Your task to perform on an android device: turn pop-ups on in chrome Image 0: 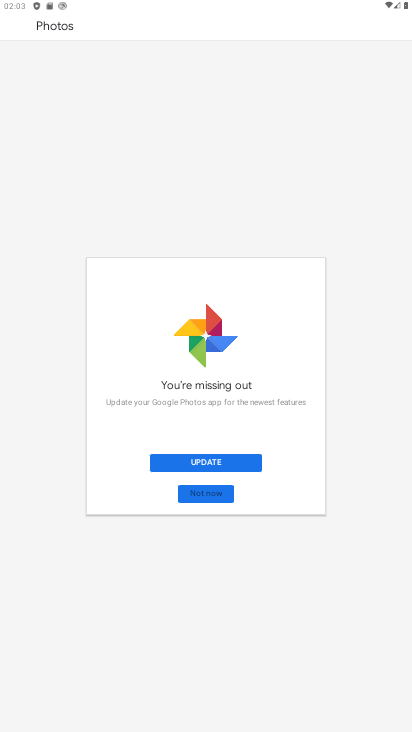
Step 0: press home button
Your task to perform on an android device: turn pop-ups on in chrome Image 1: 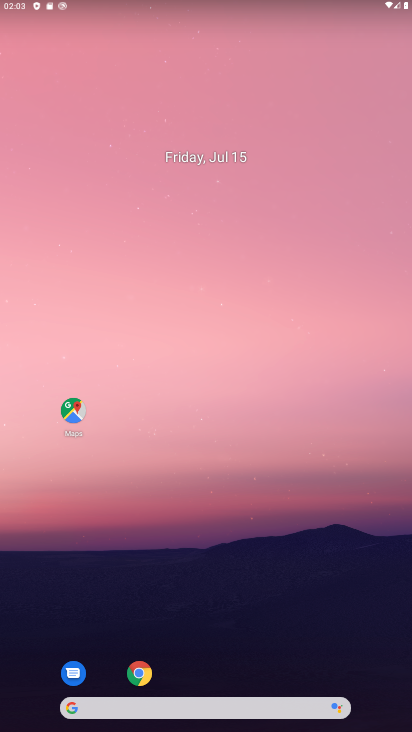
Step 1: drag from (222, 608) to (199, 27)
Your task to perform on an android device: turn pop-ups on in chrome Image 2: 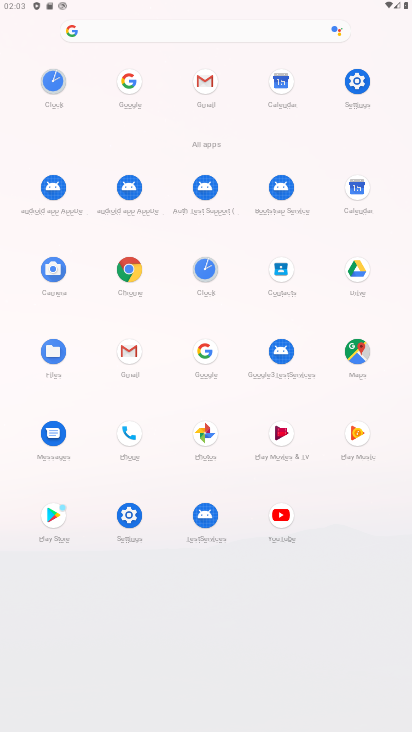
Step 2: click (123, 275)
Your task to perform on an android device: turn pop-ups on in chrome Image 3: 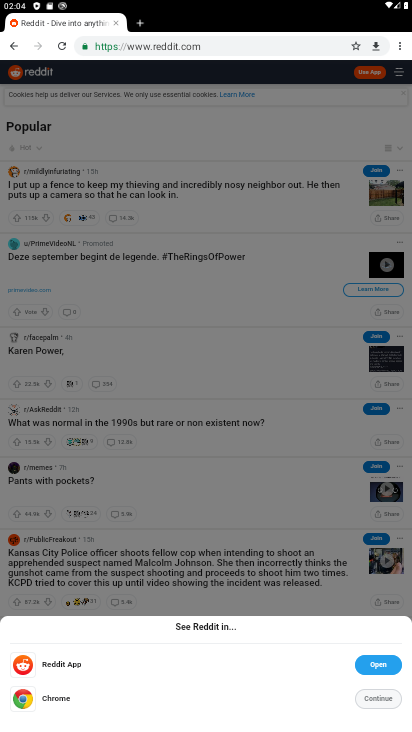
Step 3: drag from (404, 40) to (324, 309)
Your task to perform on an android device: turn pop-ups on in chrome Image 4: 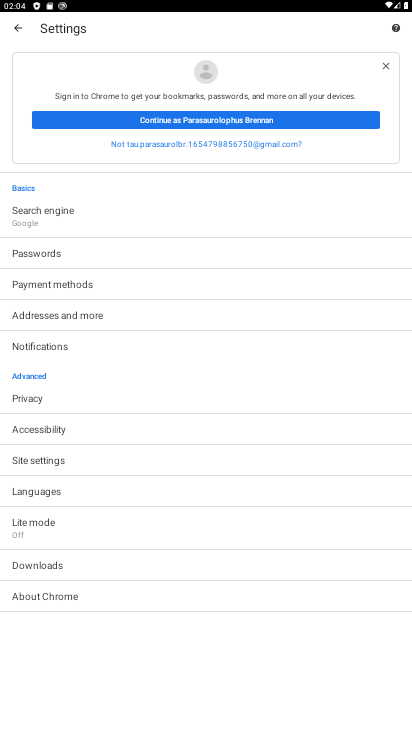
Step 4: click (85, 462)
Your task to perform on an android device: turn pop-ups on in chrome Image 5: 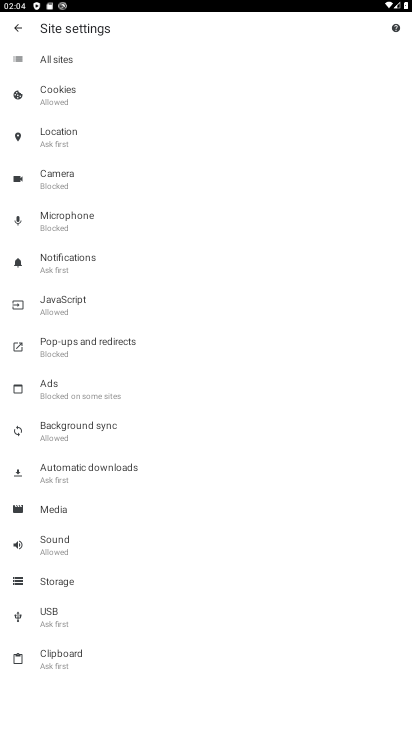
Step 5: click (94, 341)
Your task to perform on an android device: turn pop-ups on in chrome Image 6: 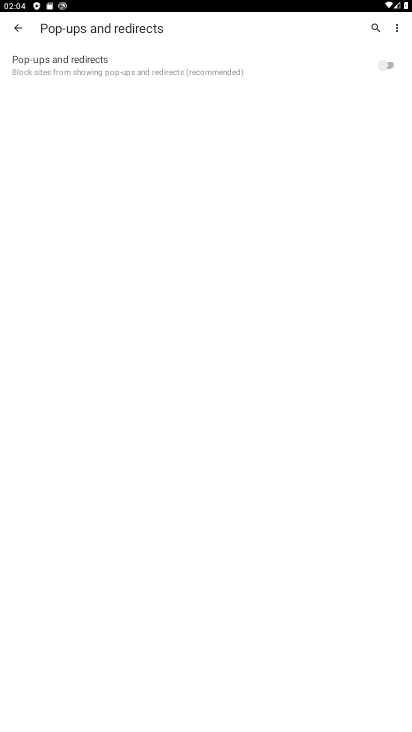
Step 6: click (394, 74)
Your task to perform on an android device: turn pop-ups on in chrome Image 7: 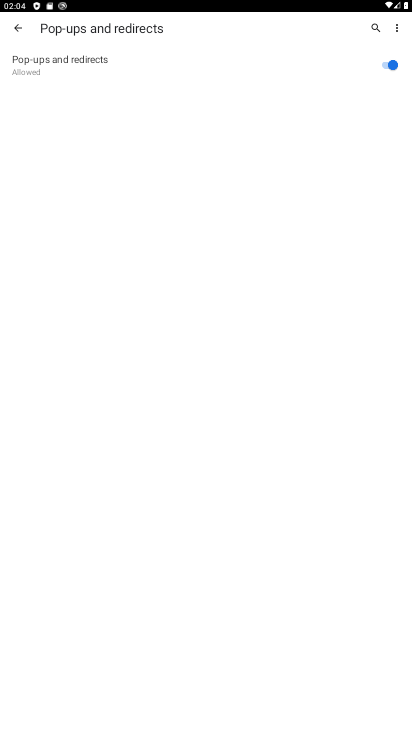
Step 7: task complete